Your task to perform on an android device: turn off sleep mode Image 0: 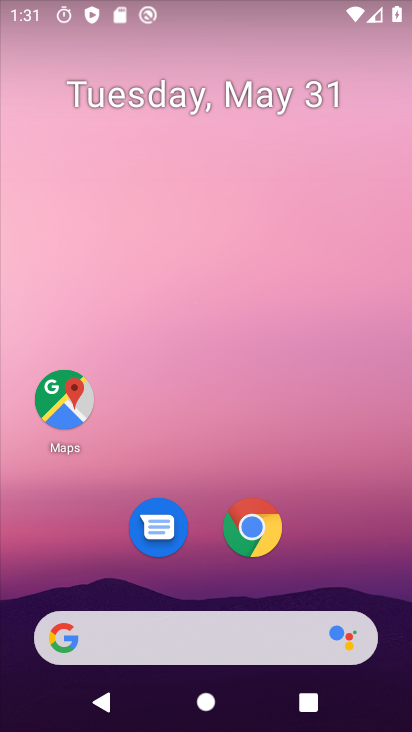
Step 0: drag from (161, 53) to (81, 731)
Your task to perform on an android device: turn off sleep mode Image 1: 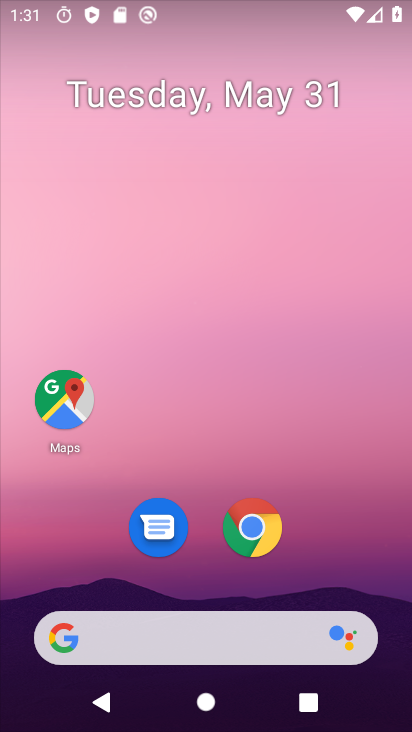
Step 1: drag from (238, 32) to (295, 687)
Your task to perform on an android device: turn off sleep mode Image 2: 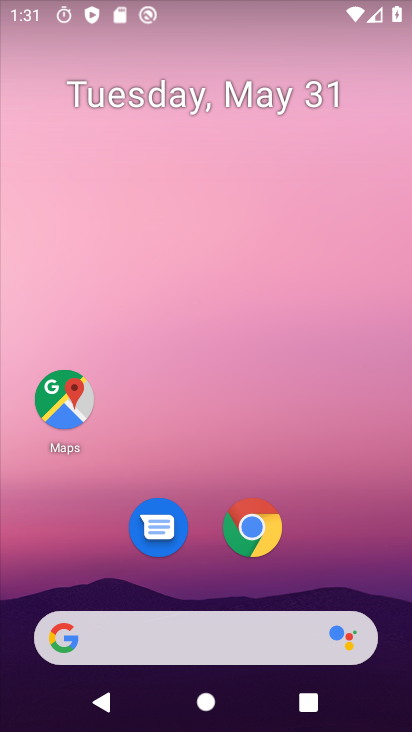
Step 2: drag from (171, 8) to (200, 696)
Your task to perform on an android device: turn off sleep mode Image 3: 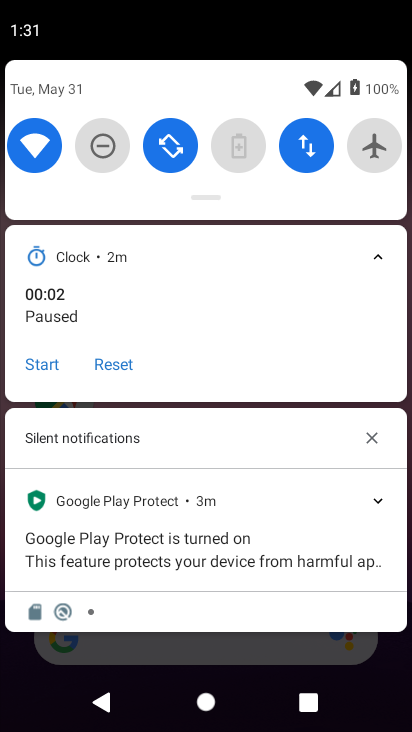
Step 3: drag from (206, 199) to (197, 620)
Your task to perform on an android device: turn off sleep mode Image 4: 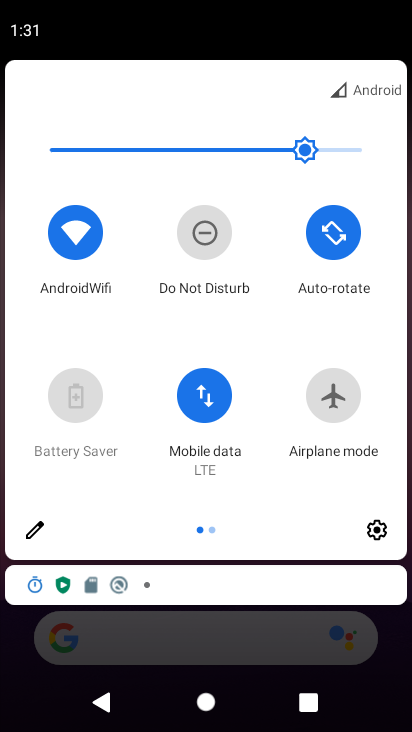
Step 4: click (28, 533)
Your task to perform on an android device: turn off sleep mode Image 5: 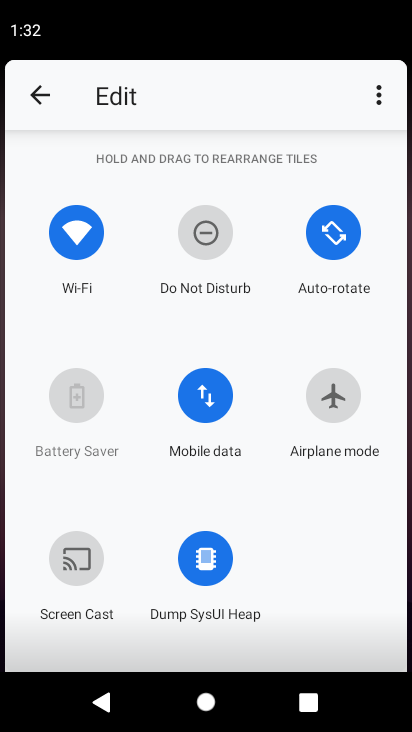
Step 5: task complete